Your task to perform on an android device: Open Android settings Image 0: 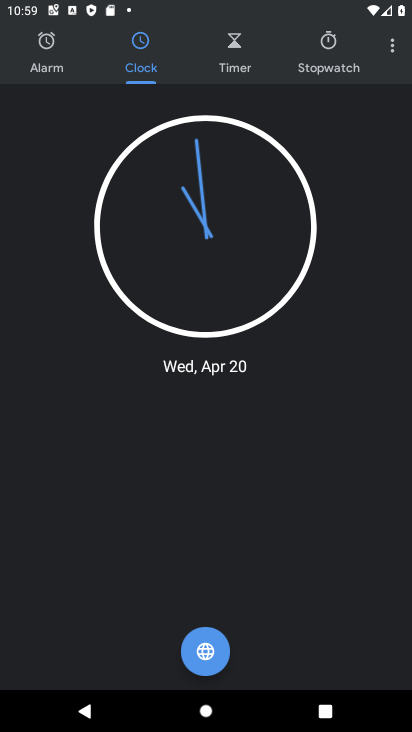
Step 0: press home button
Your task to perform on an android device: Open Android settings Image 1: 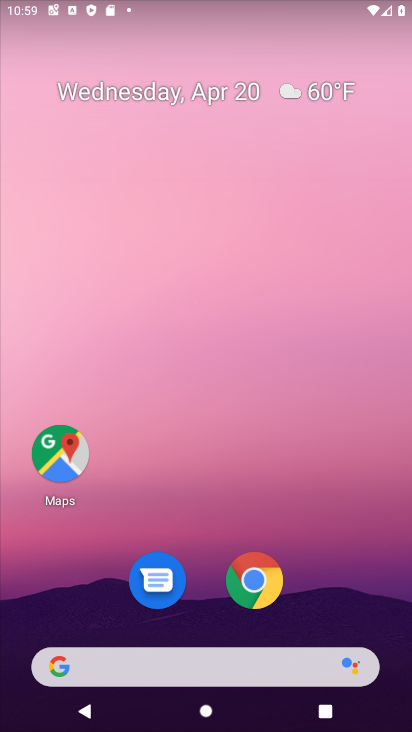
Step 1: drag from (170, 583) to (165, 236)
Your task to perform on an android device: Open Android settings Image 2: 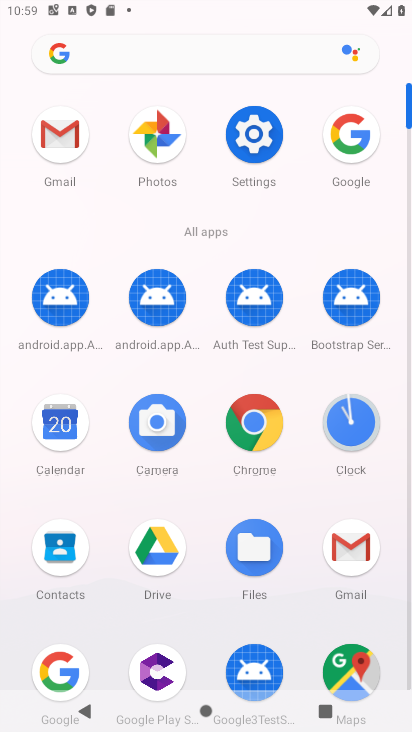
Step 2: click (254, 141)
Your task to perform on an android device: Open Android settings Image 3: 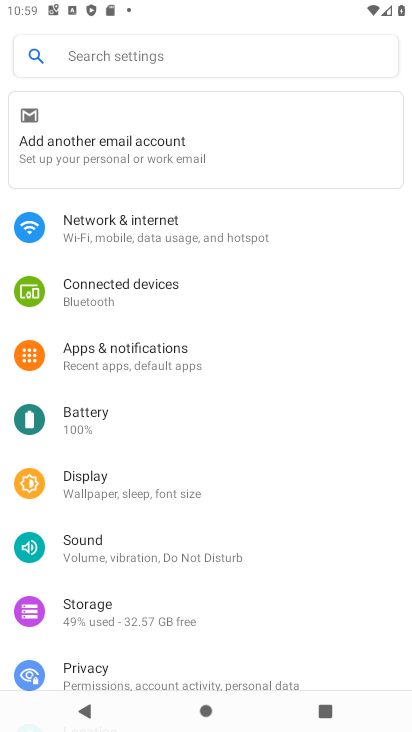
Step 3: drag from (150, 652) to (154, 231)
Your task to perform on an android device: Open Android settings Image 4: 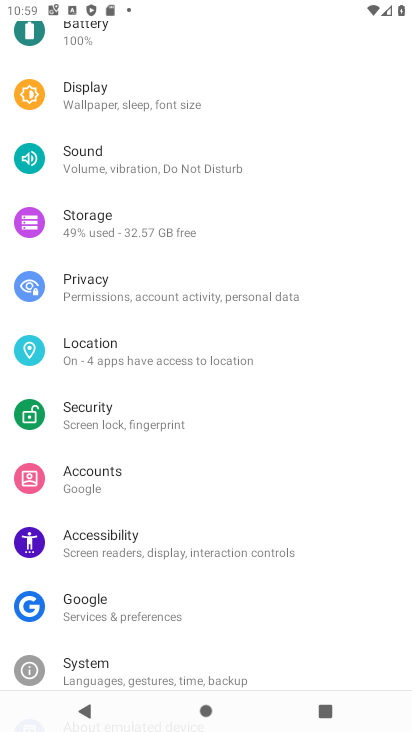
Step 4: drag from (144, 637) to (153, 252)
Your task to perform on an android device: Open Android settings Image 5: 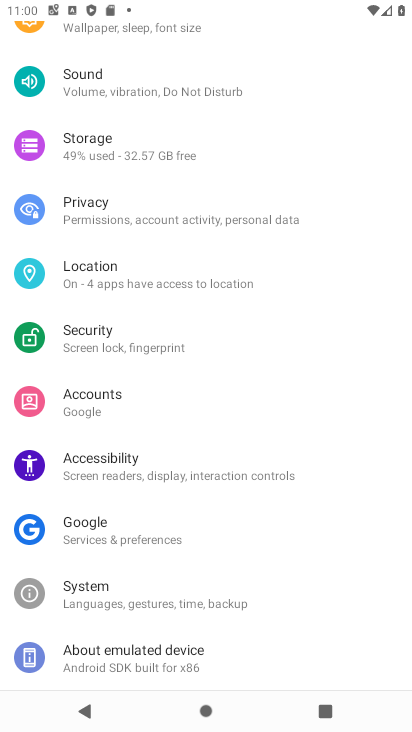
Step 5: click (112, 654)
Your task to perform on an android device: Open Android settings Image 6: 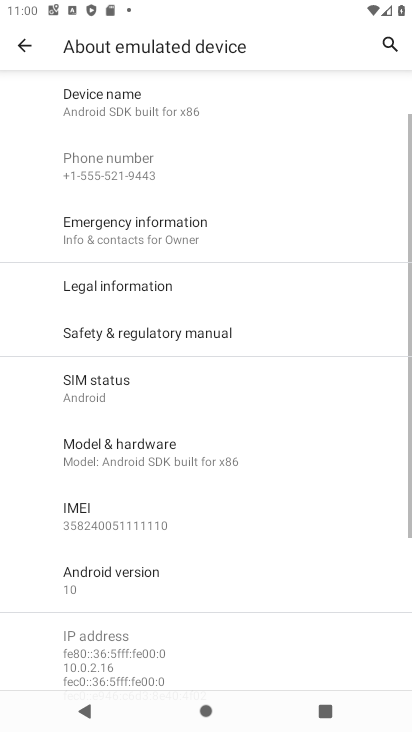
Step 6: click (112, 654)
Your task to perform on an android device: Open Android settings Image 7: 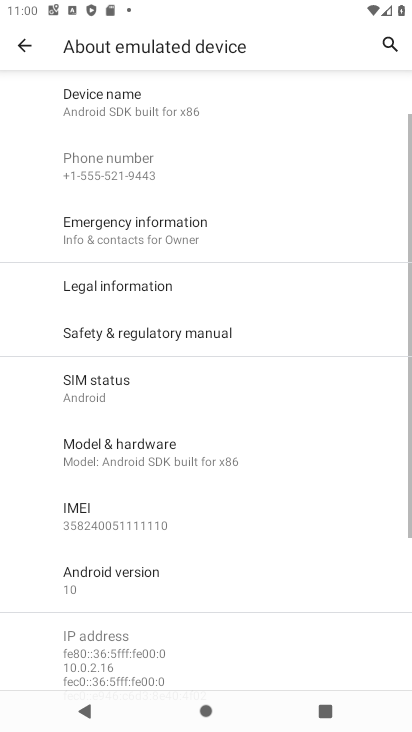
Step 7: click (112, 654)
Your task to perform on an android device: Open Android settings Image 8: 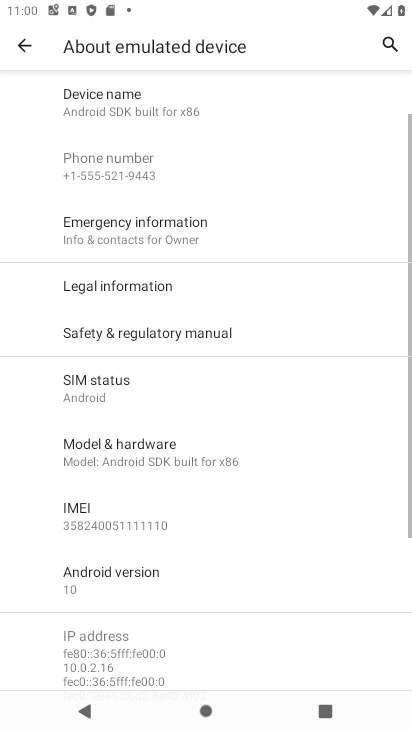
Step 8: task complete